Your task to perform on an android device: Is it going to rain tomorrow? Image 0: 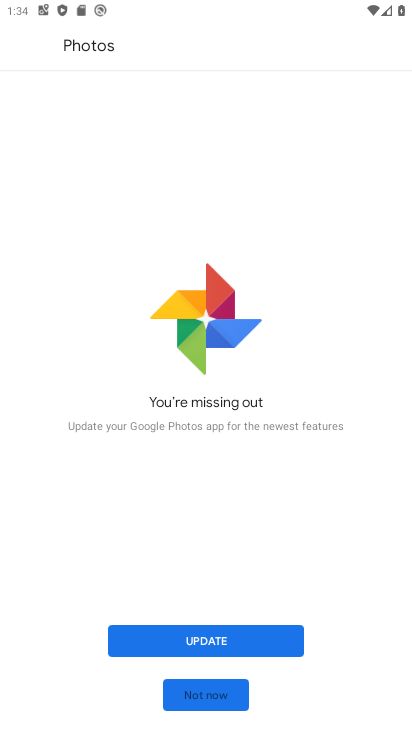
Step 0: press home button
Your task to perform on an android device: Is it going to rain tomorrow? Image 1: 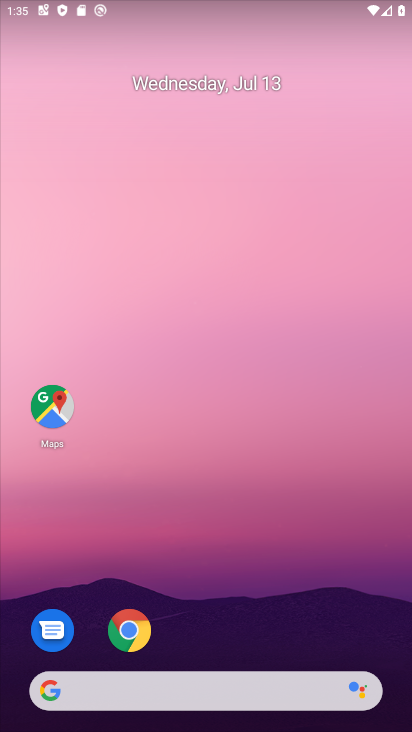
Step 1: click (231, 684)
Your task to perform on an android device: Is it going to rain tomorrow? Image 2: 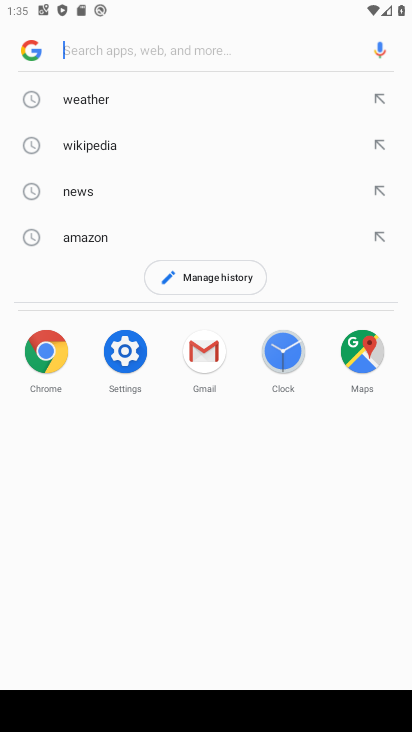
Step 2: click (85, 98)
Your task to perform on an android device: Is it going to rain tomorrow? Image 3: 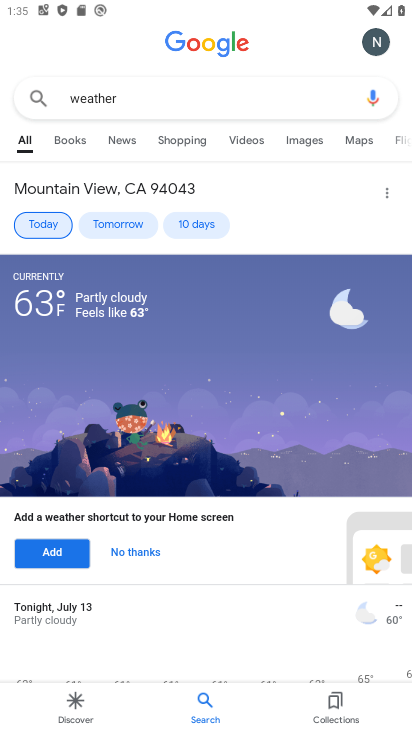
Step 3: click (112, 222)
Your task to perform on an android device: Is it going to rain tomorrow? Image 4: 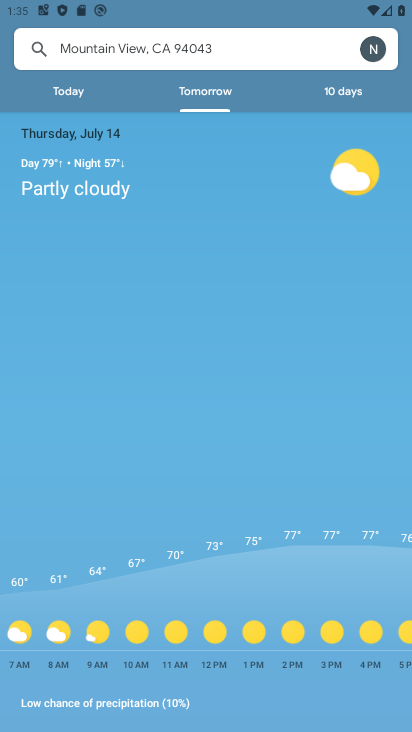
Step 4: task complete